Your task to perform on an android device: What's the weather today? Image 0: 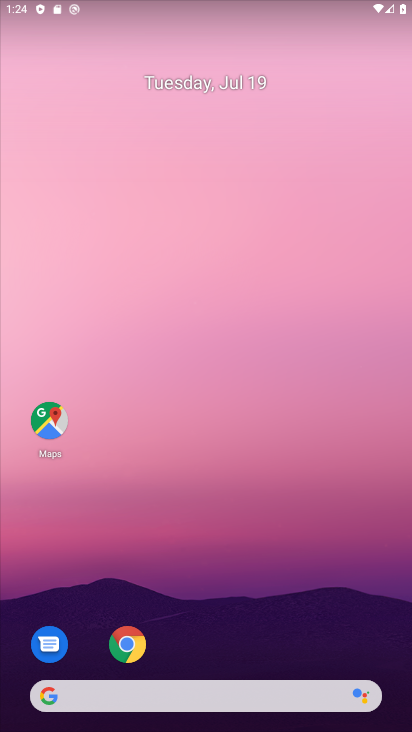
Step 0: click (114, 690)
Your task to perform on an android device: What's the weather today? Image 1: 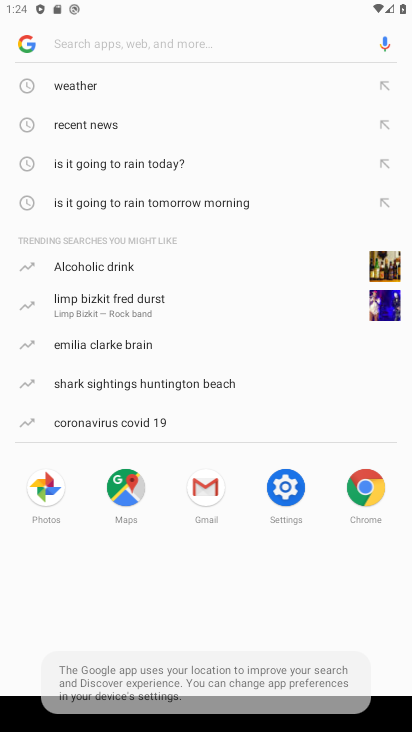
Step 1: click (92, 87)
Your task to perform on an android device: What's the weather today? Image 2: 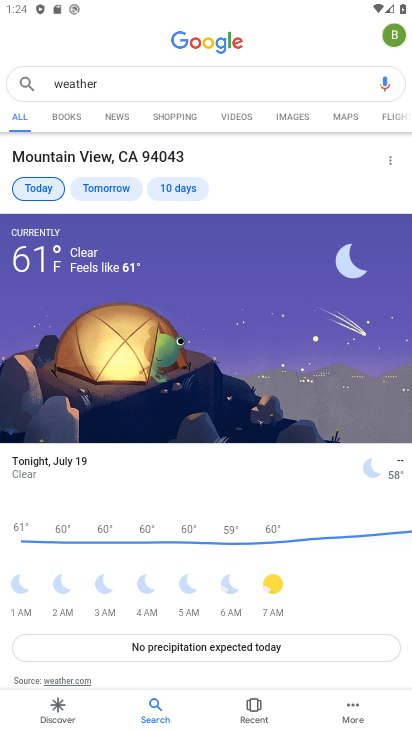
Step 2: task complete